Your task to perform on an android device: turn on sleep mode Image 0: 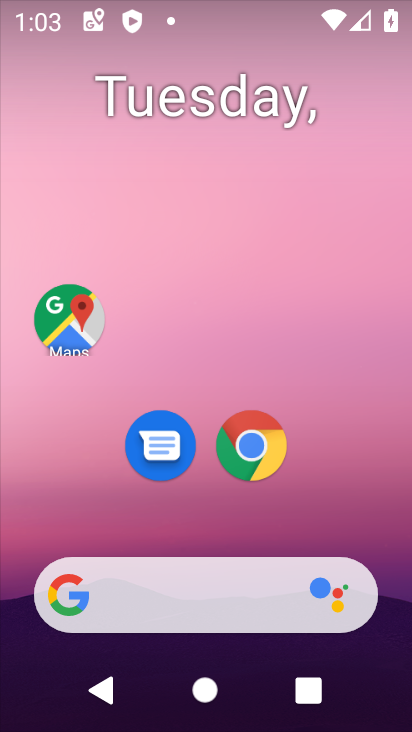
Step 0: drag from (338, 519) to (349, 15)
Your task to perform on an android device: turn on sleep mode Image 1: 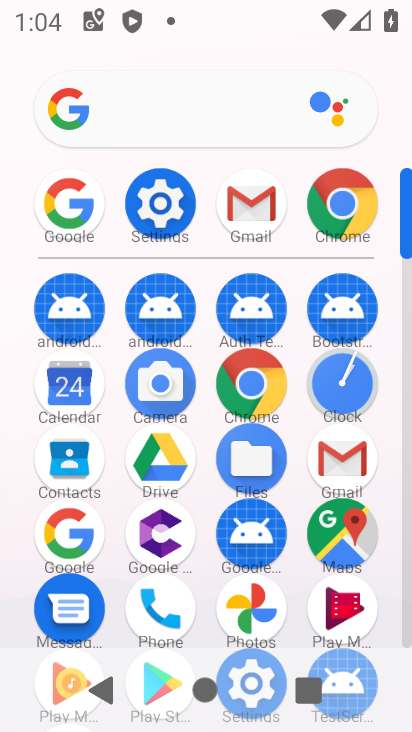
Step 1: click (155, 188)
Your task to perform on an android device: turn on sleep mode Image 2: 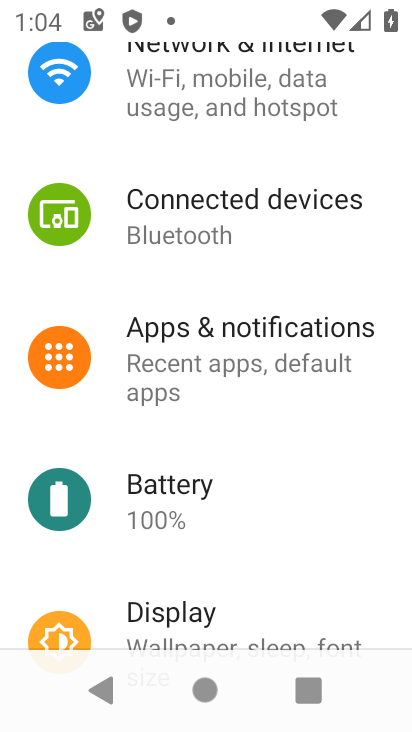
Step 2: drag from (274, 538) to (241, 181)
Your task to perform on an android device: turn on sleep mode Image 3: 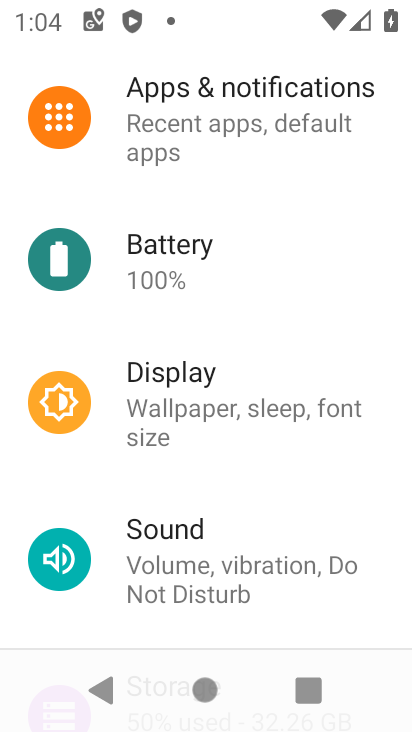
Step 3: drag from (233, 570) to (235, 272)
Your task to perform on an android device: turn on sleep mode Image 4: 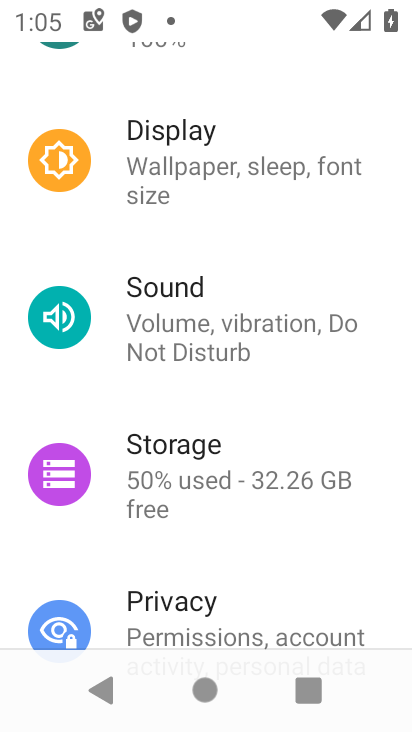
Step 4: drag from (248, 240) to (274, 530)
Your task to perform on an android device: turn on sleep mode Image 5: 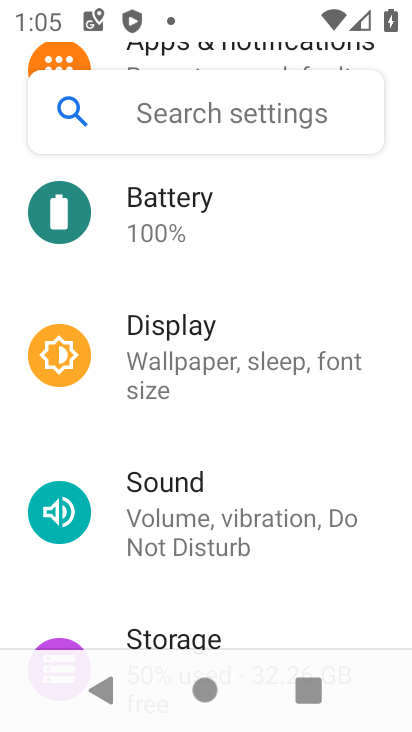
Step 5: drag from (234, 260) to (267, 568)
Your task to perform on an android device: turn on sleep mode Image 6: 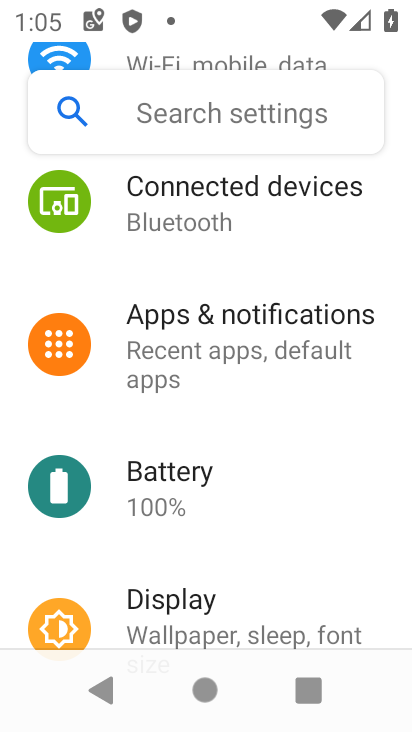
Step 6: drag from (219, 195) to (282, 629)
Your task to perform on an android device: turn on sleep mode Image 7: 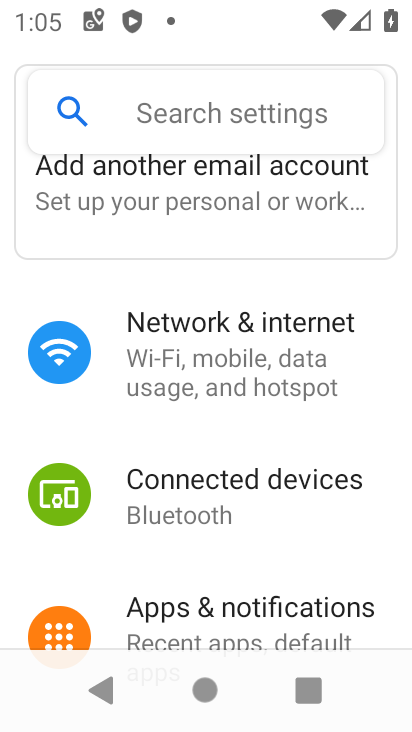
Step 7: drag from (218, 545) to (264, 140)
Your task to perform on an android device: turn on sleep mode Image 8: 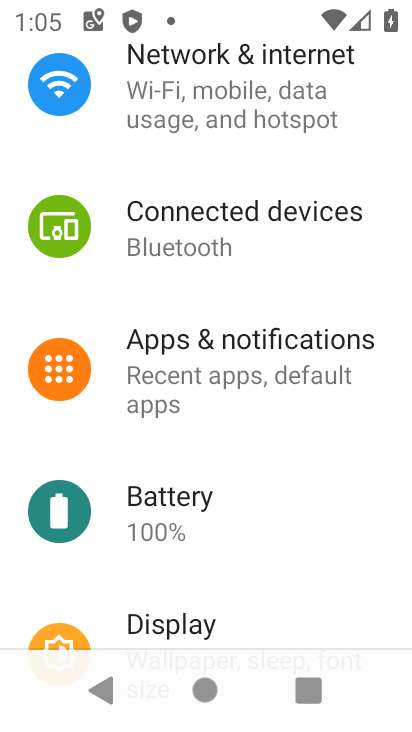
Step 8: drag from (221, 507) to (189, 96)
Your task to perform on an android device: turn on sleep mode Image 9: 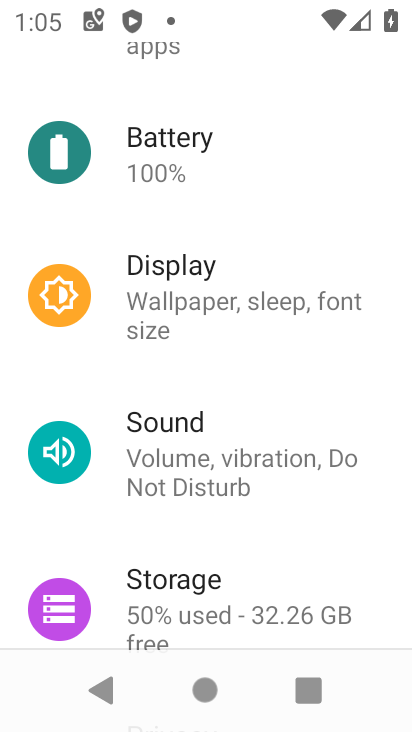
Step 9: click (171, 316)
Your task to perform on an android device: turn on sleep mode Image 10: 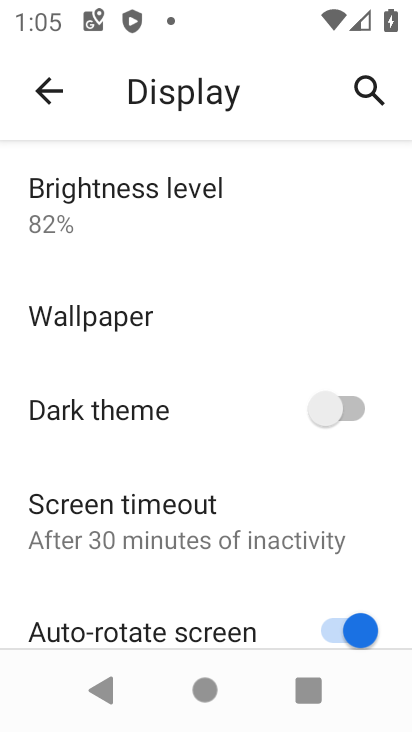
Step 10: drag from (203, 585) to (225, 232)
Your task to perform on an android device: turn on sleep mode Image 11: 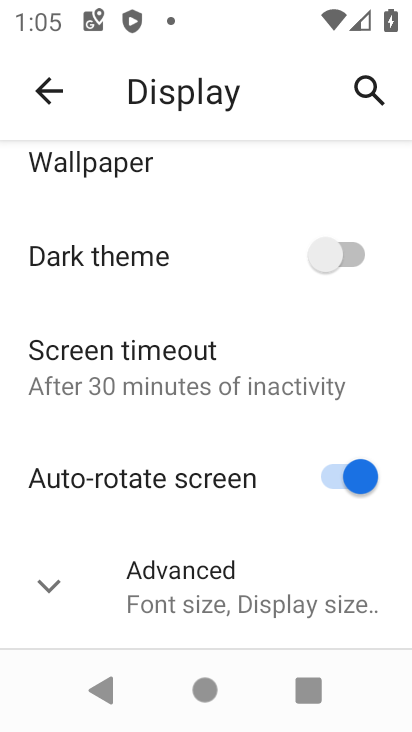
Step 11: click (240, 615)
Your task to perform on an android device: turn on sleep mode Image 12: 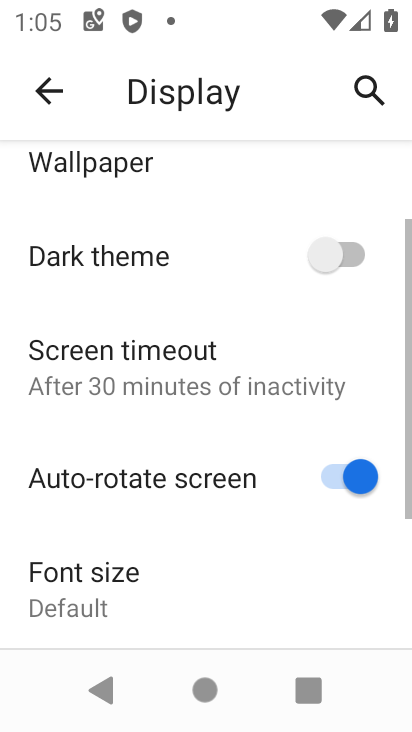
Step 12: drag from (231, 604) to (197, 223)
Your task to perform on an android device: turn on sleep mode Image 13: 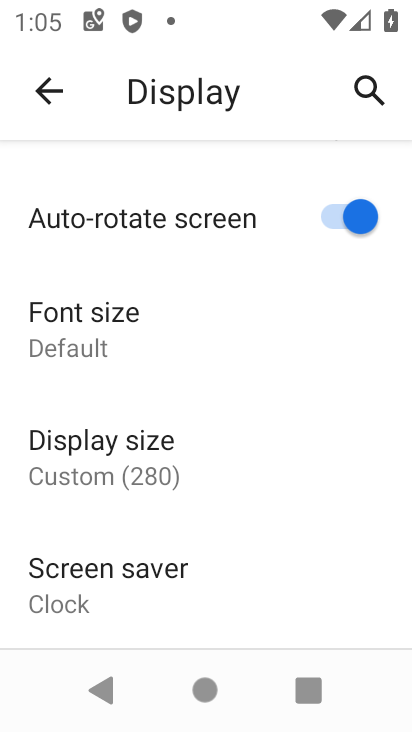
Step 13: drag from (194, 323) to (245, 731)
Your task to perform on an android device: turn on sleep mode Image 14: 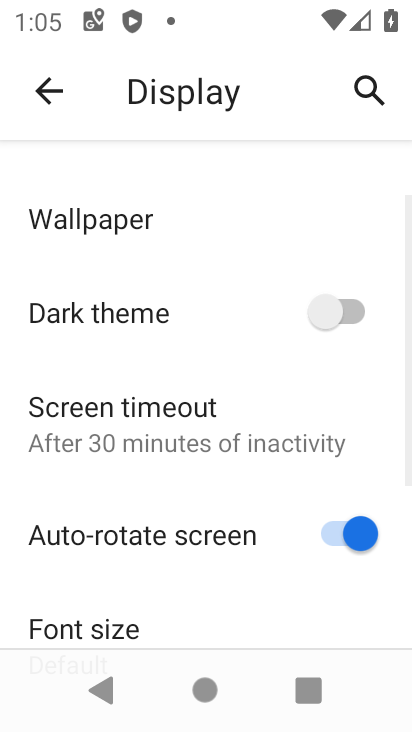
Step 14: drag from (142, 309) to (157, 603)
Your task to perform on an android device: turn on sleep mode Image 15: 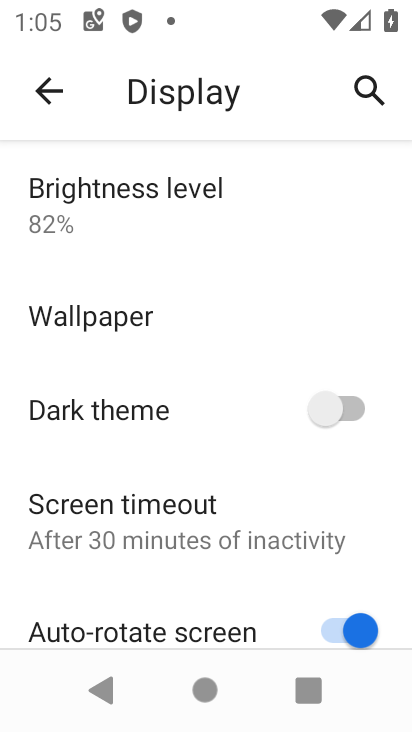
Step 15: click (136, 522)
Your task to perform on an android device: turn on sleep mode Image 16: 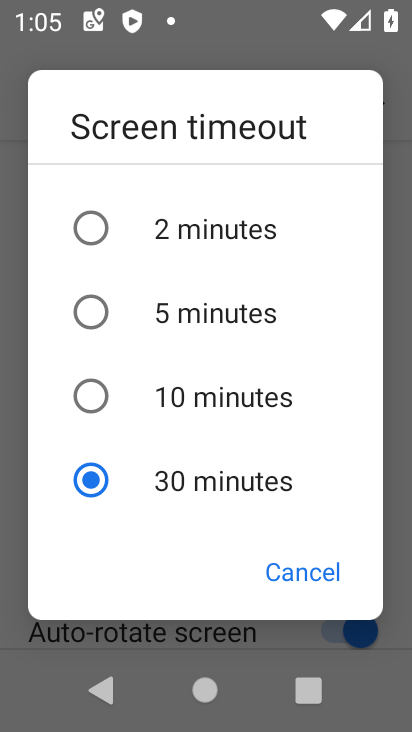
Step 16: task complete